Your task to perform on an android device: Go to internet settings Image 0: 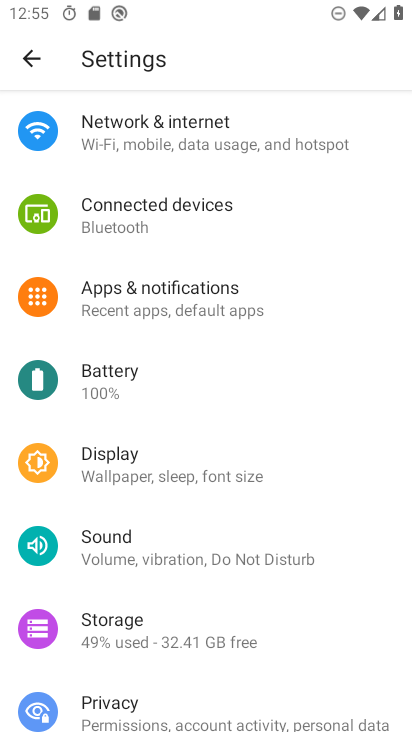
Step 0: click (244, 165)
Your task to perform on an android device: Go to internet settings Image 1: 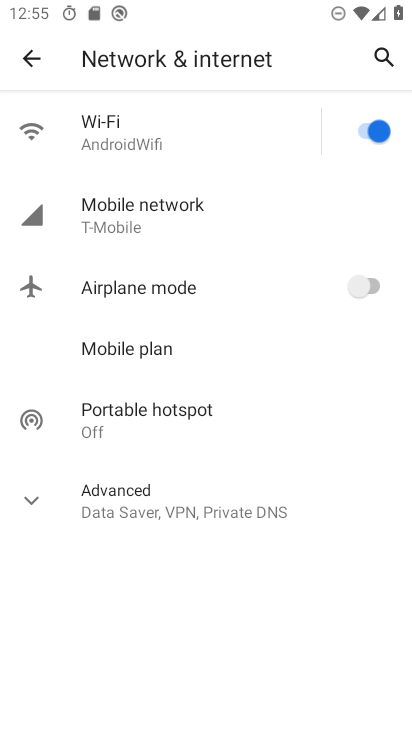
Step 1: click (207, 234)
Your task to perform on an android device: Go to internet settings Image 2: 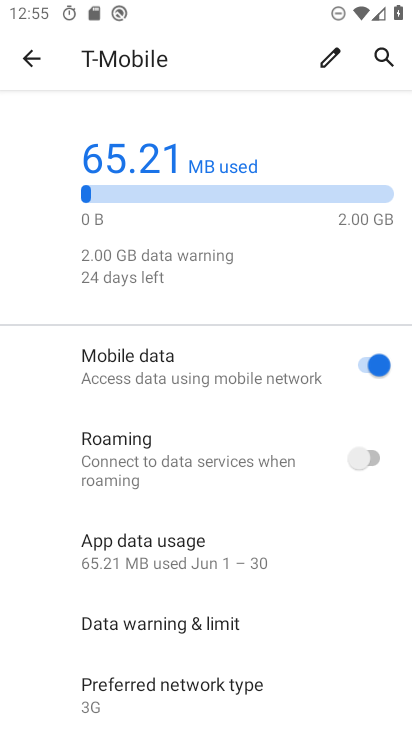
Step 2: task complete